Your task to perform on an android device: Open the phone app and click the voicemail tab. Image 0: 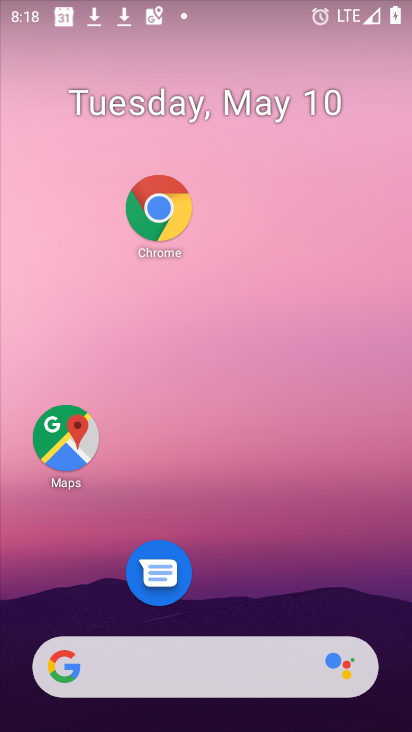
Step 0: drag from (299, 697) to (277, 136)
Your task to perform on an android device: Open the phone app and click the voicemail tab. Image 1: 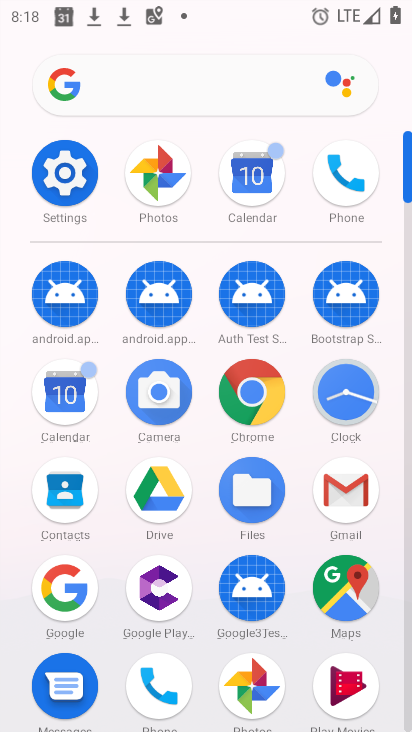
Step 1: click (337, 191)
Your task to perform on an android device: Open the phone app and click the voicemail tab. Image 2: 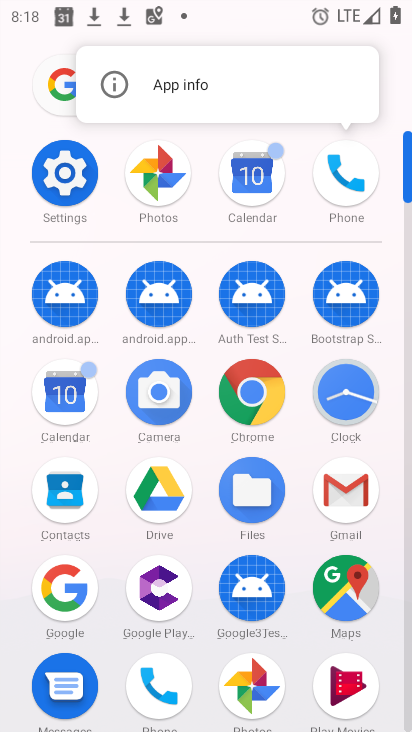
Step 2: click (341, 195)
Your task to perform on an android device: Open the phone app and click the voicemail tab. Image 3: 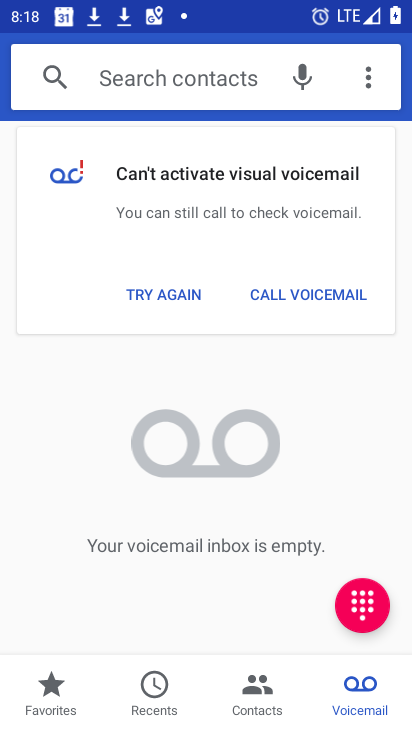
Step 3: click (381, 685)
Your task to perform on an android device: Open the phone app and click the voicemail tab. Image 4: 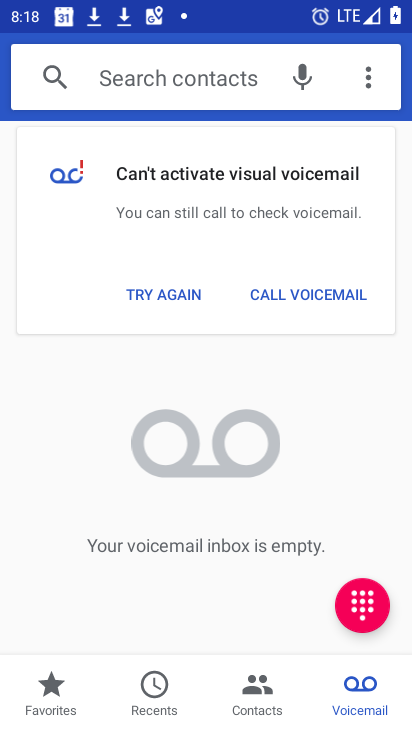
Step 4: task complete